Your task to perform on an android device: Add "lg ultragear" to the cart on costco Image 0: 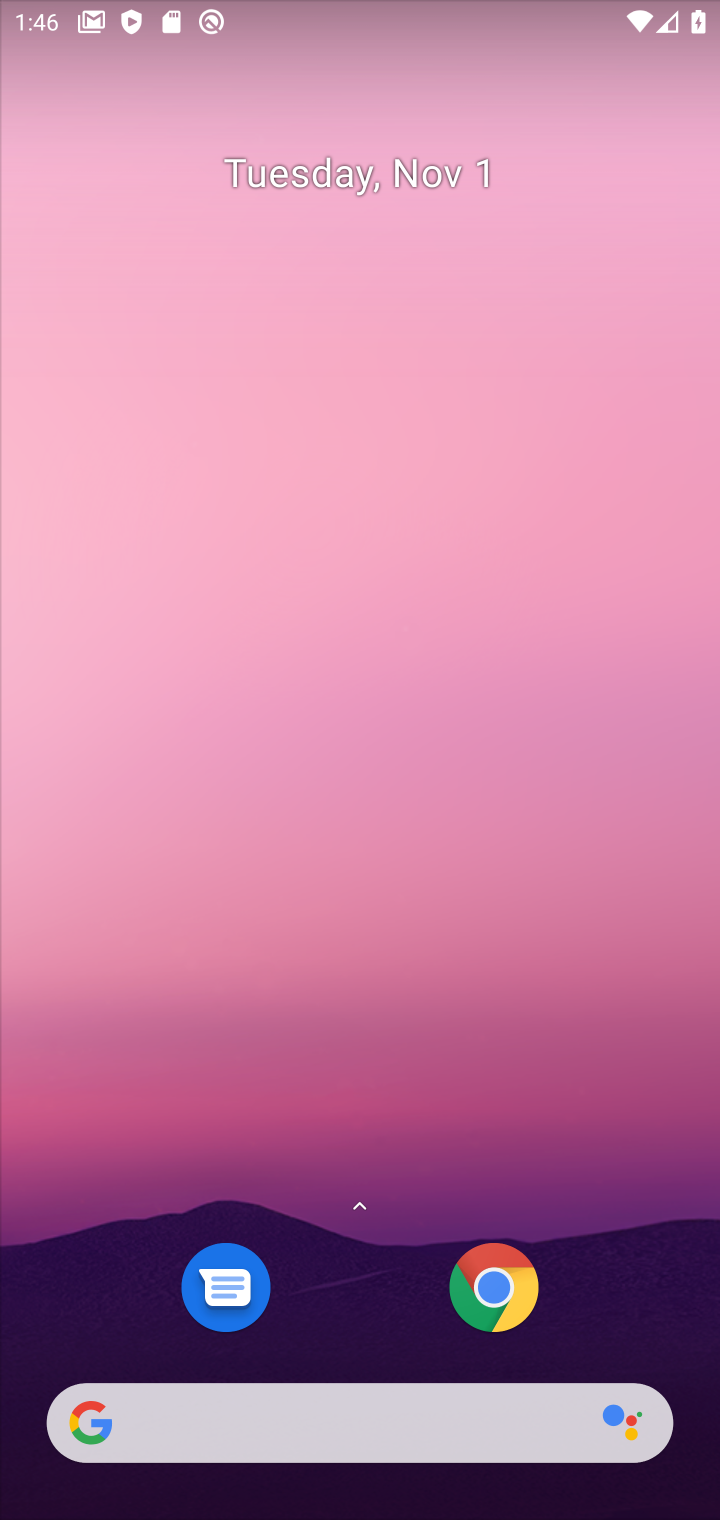
Step 0: drag from (324, 928) to (392, 154)
Your task to perform on an android device: Add "lg ultragear" to the cart on costco Image 1: 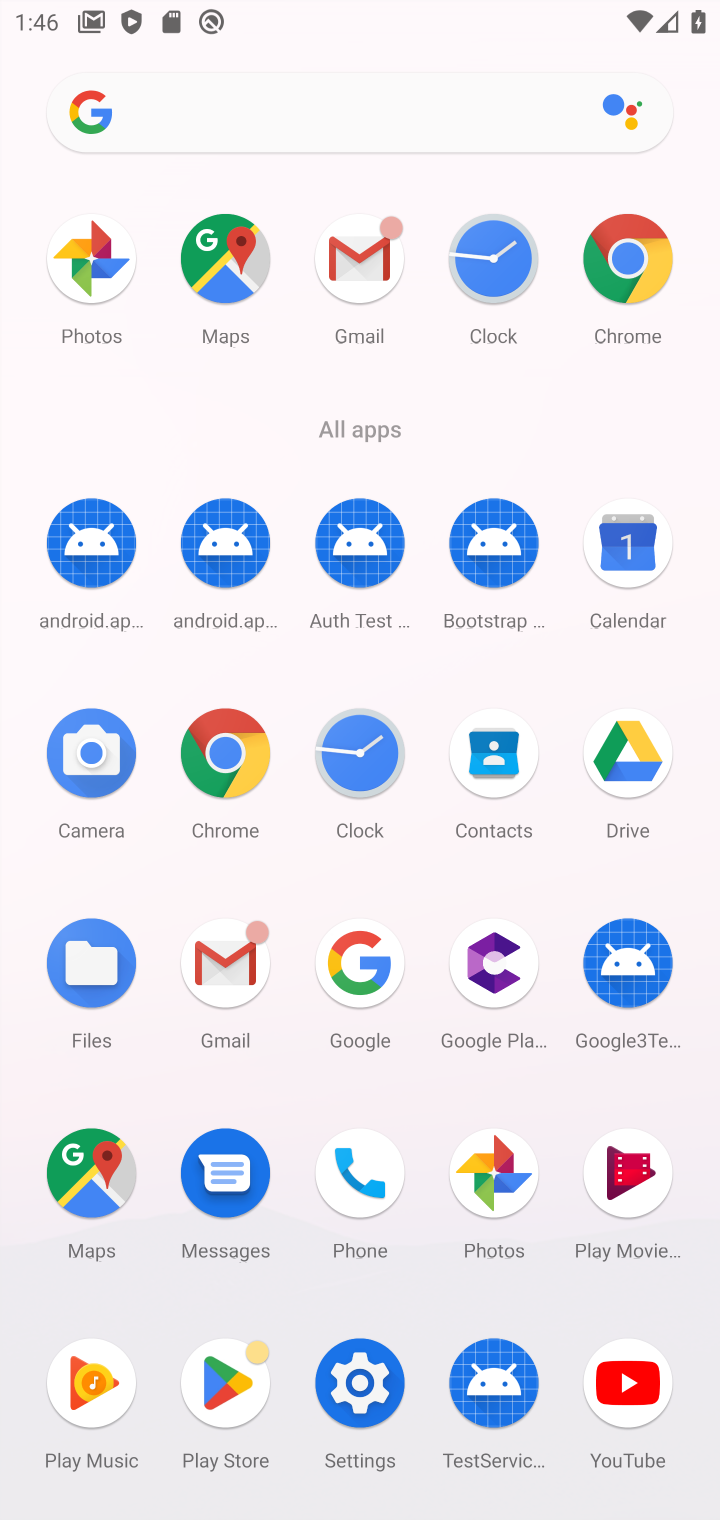
Step 1: click (229, 768)
Your task to perform on an android device: Add "lg ultragear" to the cart on costco Image 2: 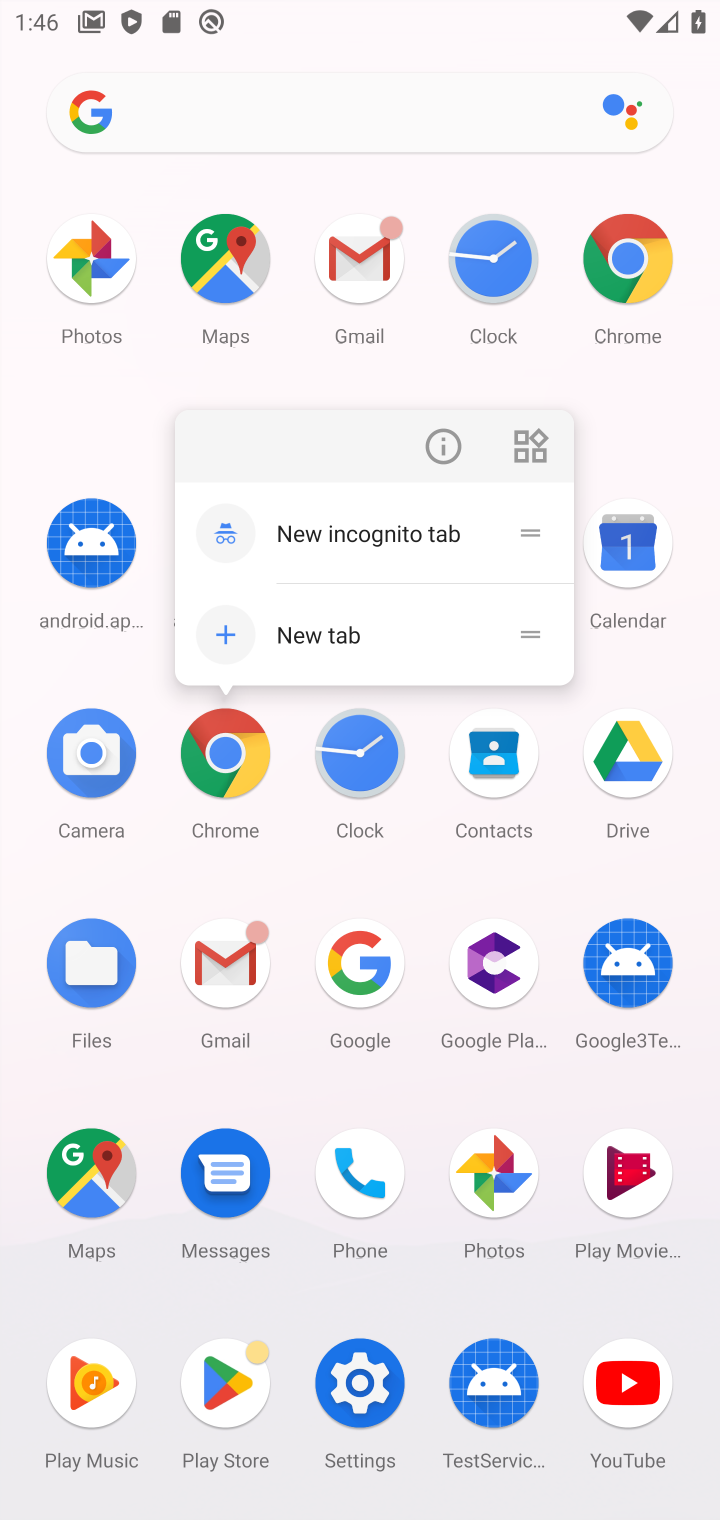
Step 2: click (229, 768)
Your task to perform on an android device: Add "lg ultragear" to the cart on costco Image 3: 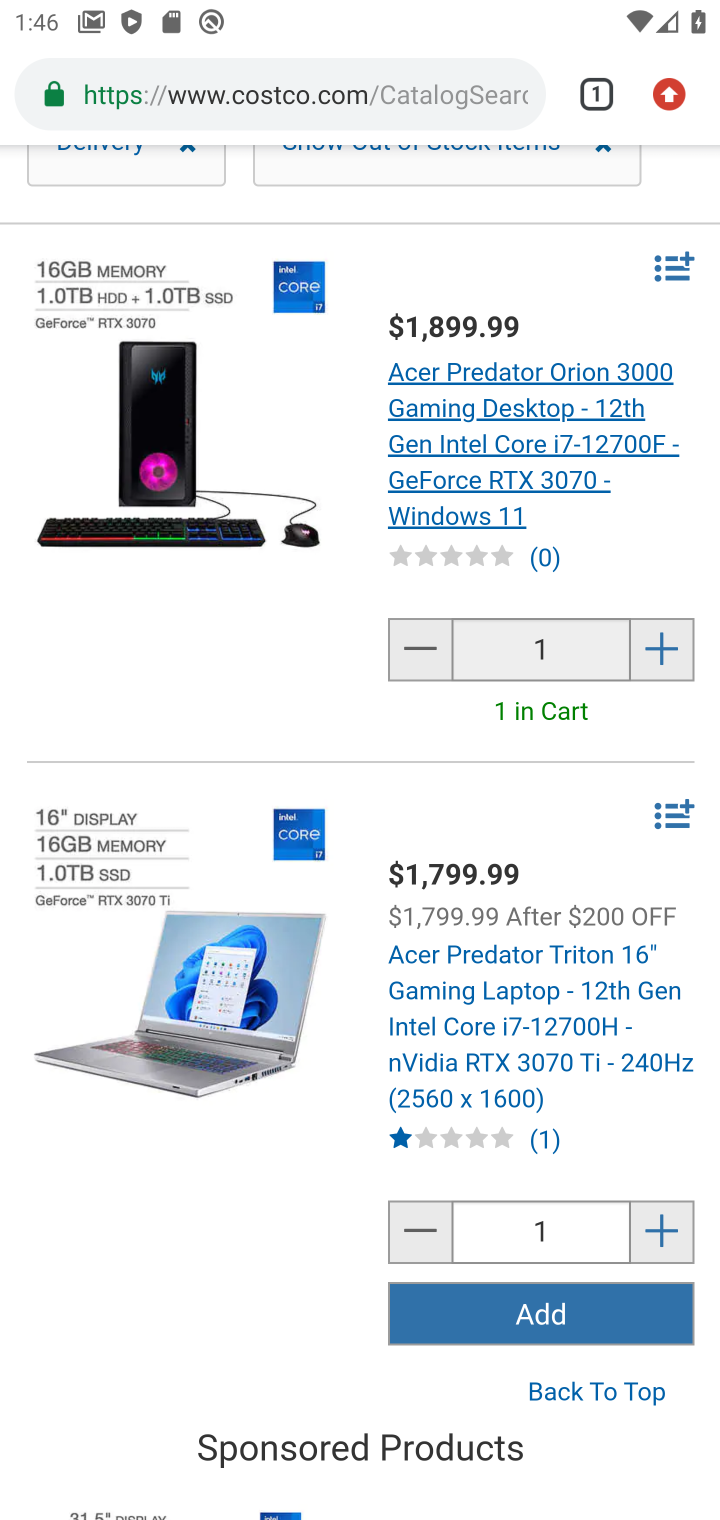
Step 3: click (425, 80)
Your task to perform on an android device: Add "lg ultragear" to the cart on costco Image 4: 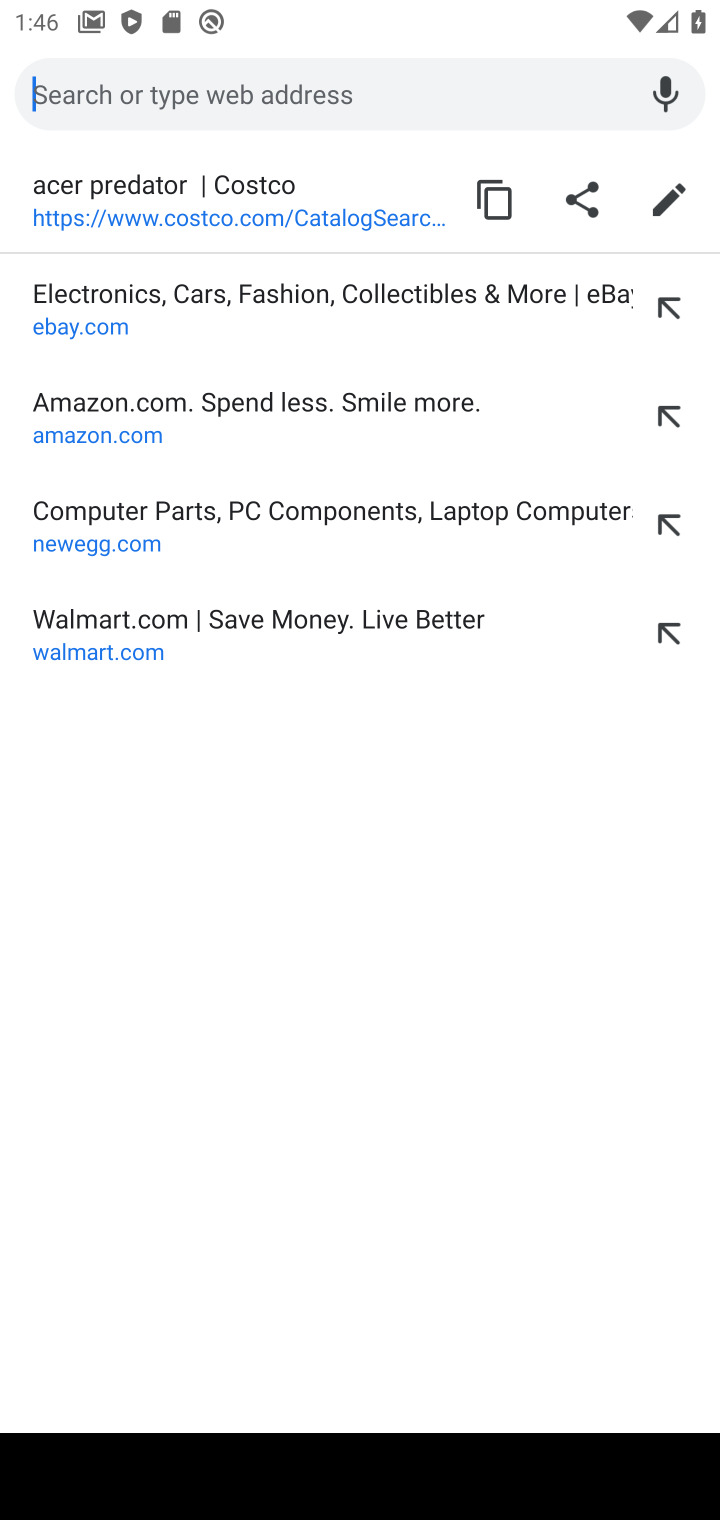
Step 4: type "costco.com"
Your task to perform on an android device: Add "lg ultragear" to the cart on costco Image 5: 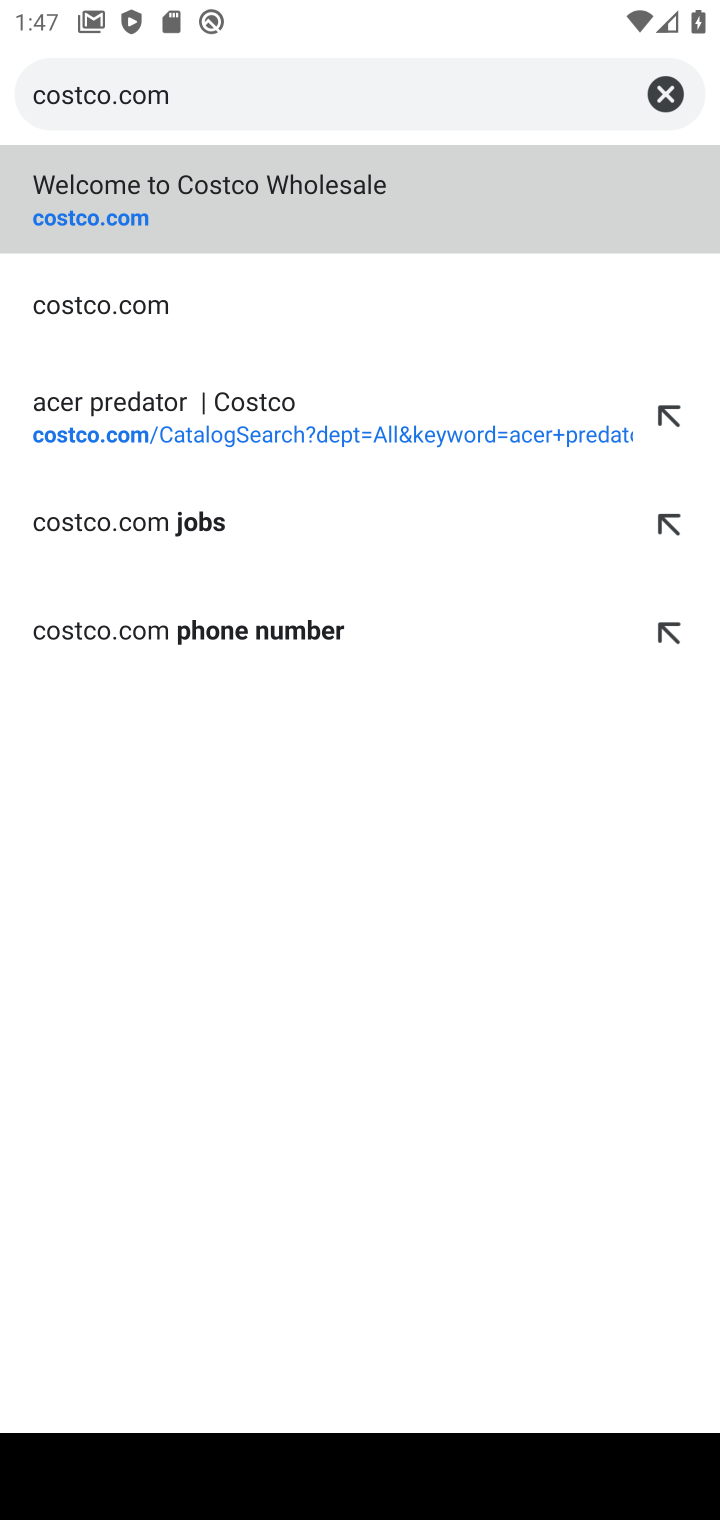
Step 5: press enter
Your task to perform on an android device: Add "lg ultragear" to the cart on costco Image 6: 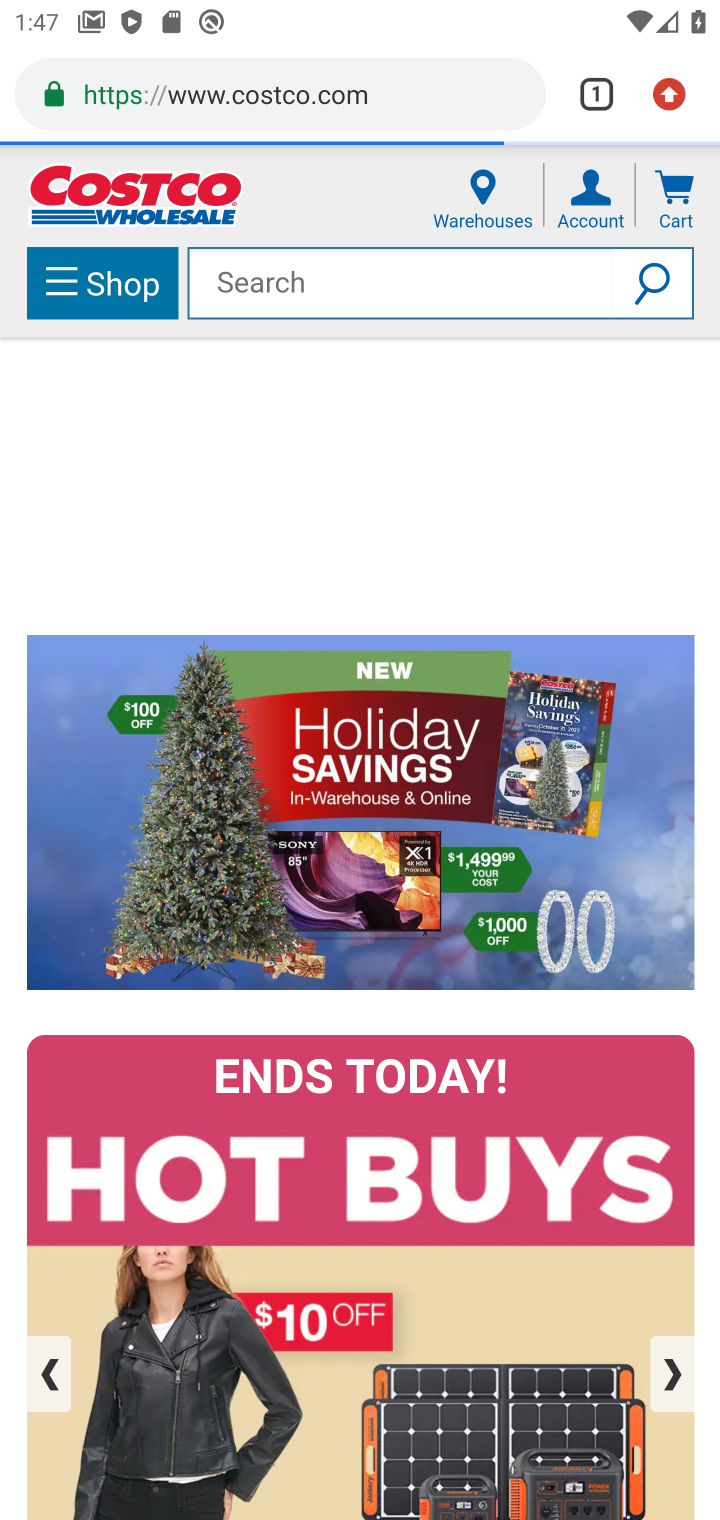
Step 6: click (509, 287)
Your task to perform on an android device: Add "lg ultragear" to the cart on costco Image 7: 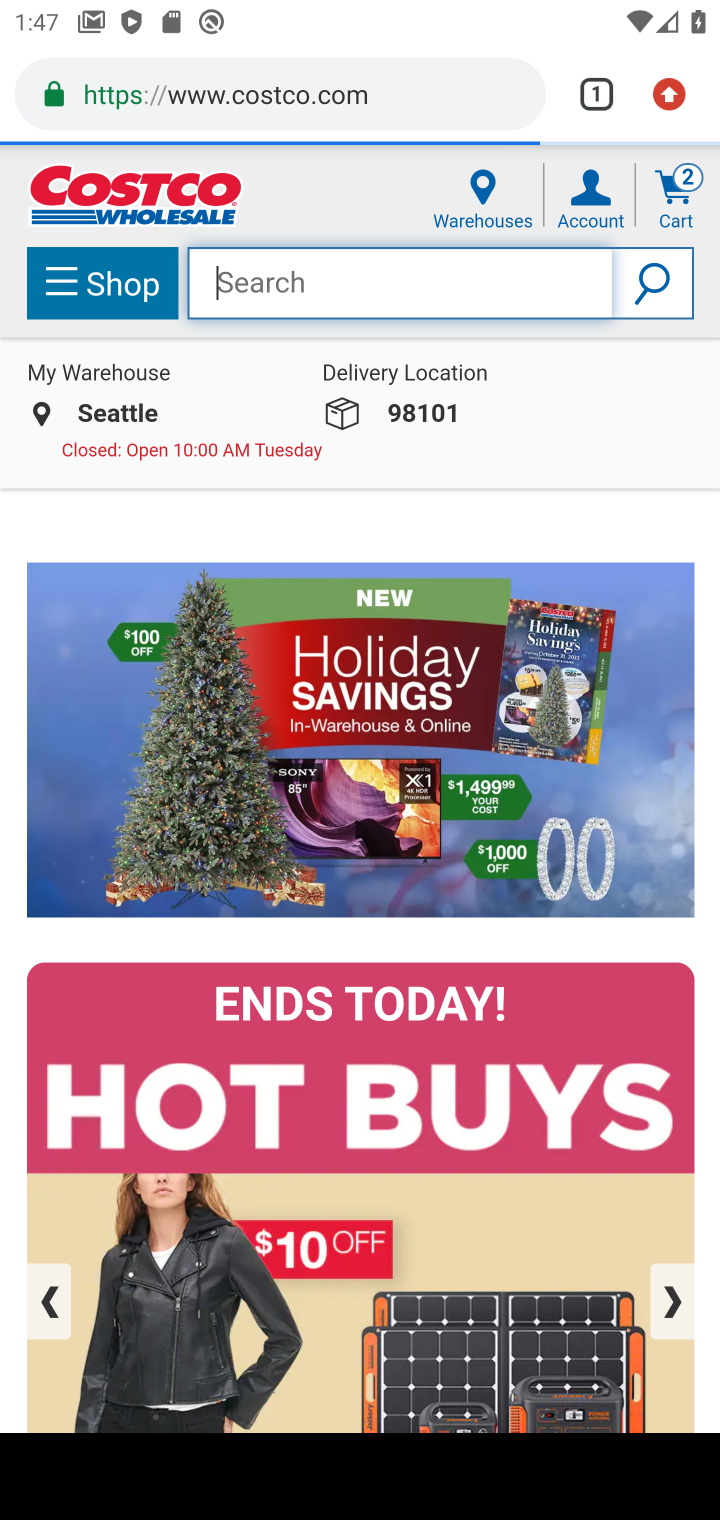
Step 7: type "lg ultragear"
Your task to perform on an android device: Add "lg ultragear" to the cart on costco Image 8: 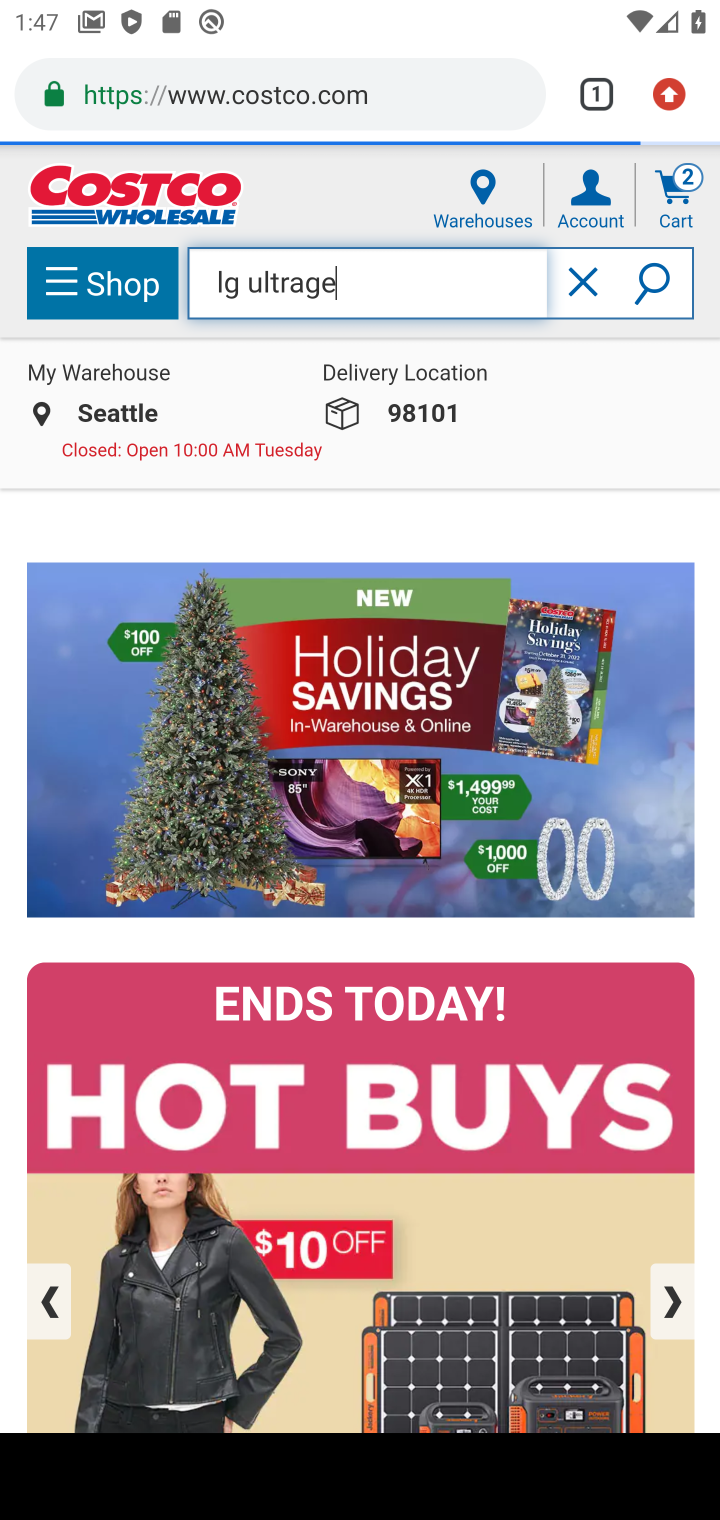
Step 8: press enter
Your task to perform on an android device: Add "lg ultragear" to the cart on costco Image 9: 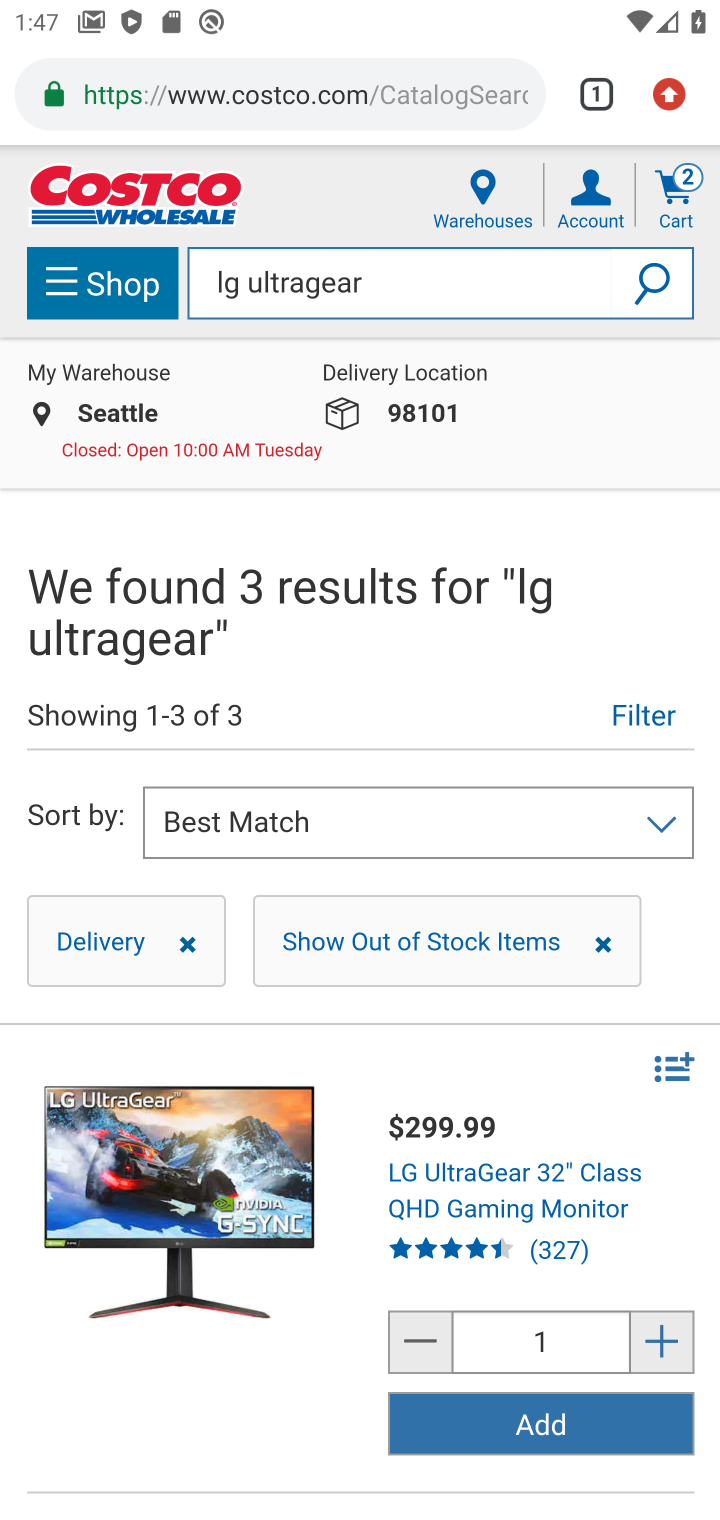
Step 9: drag from (305, 1205) to (401, 434)
Your task to perform on an android device: Add "lg ultragear" to the cart on costco Image 10: 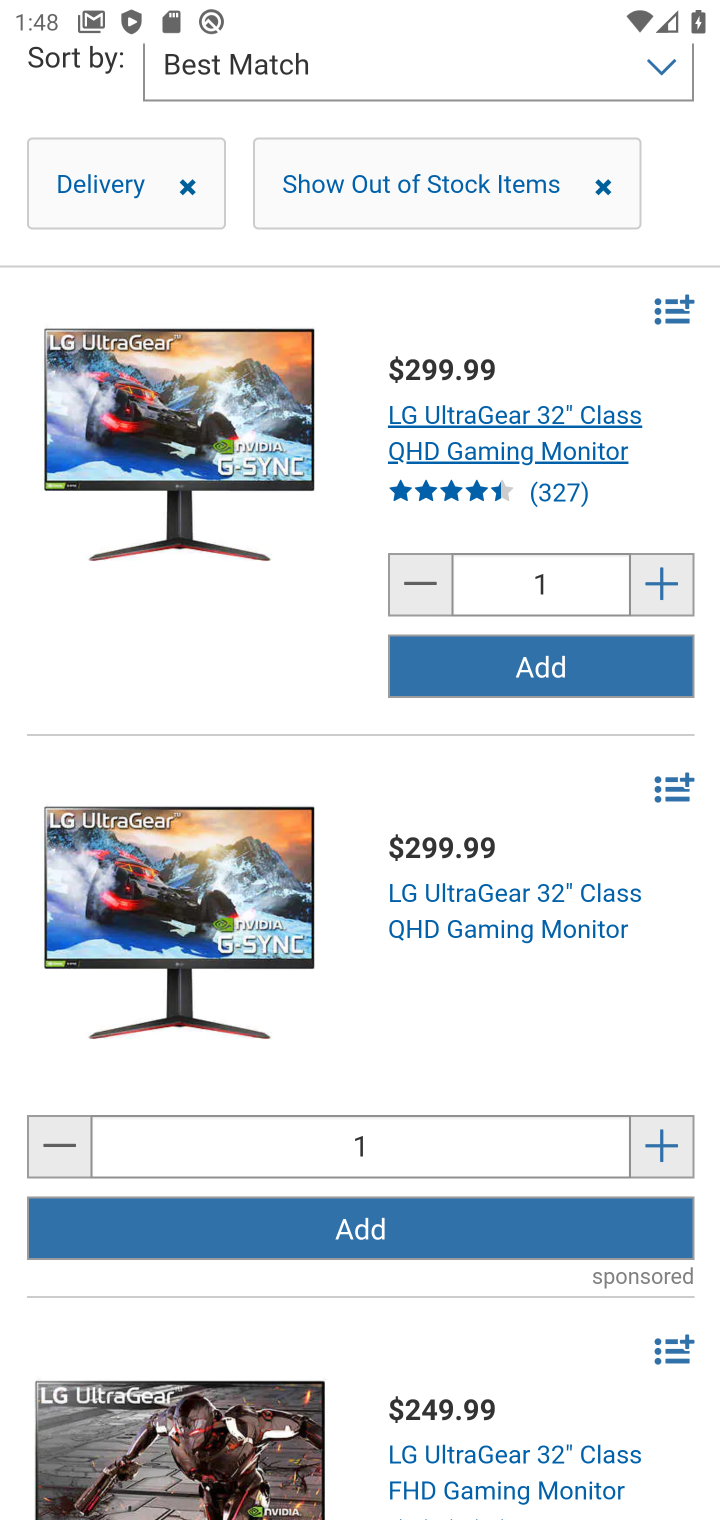
Step 10: click (508, 437)
Your task to perform on an android device: Add "lg ultragear" to the cart on costco Image 11: 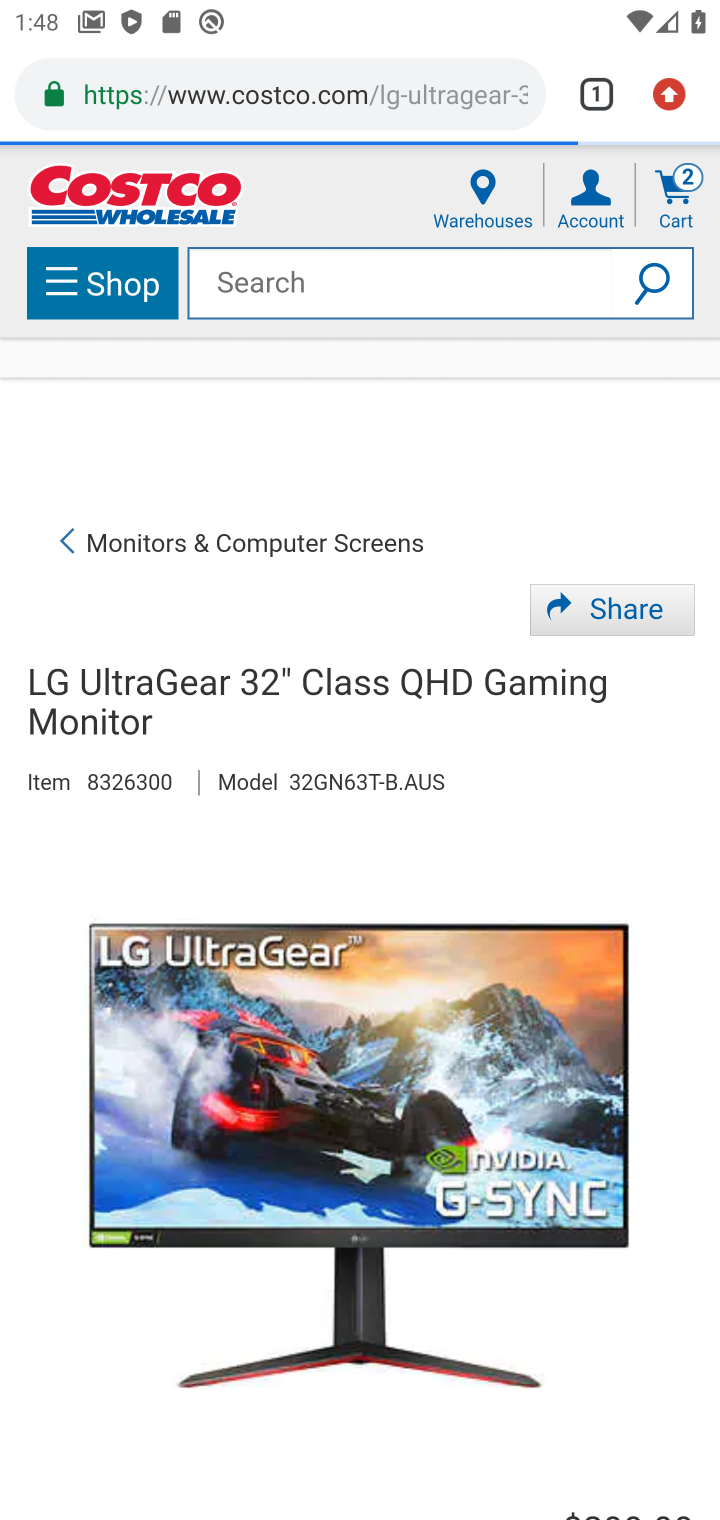
Step 11: drag from (494, 1220) to (526, 360)
Your task to perform on an android device: Add "lg ultragear" to the cart on costco Image 12: 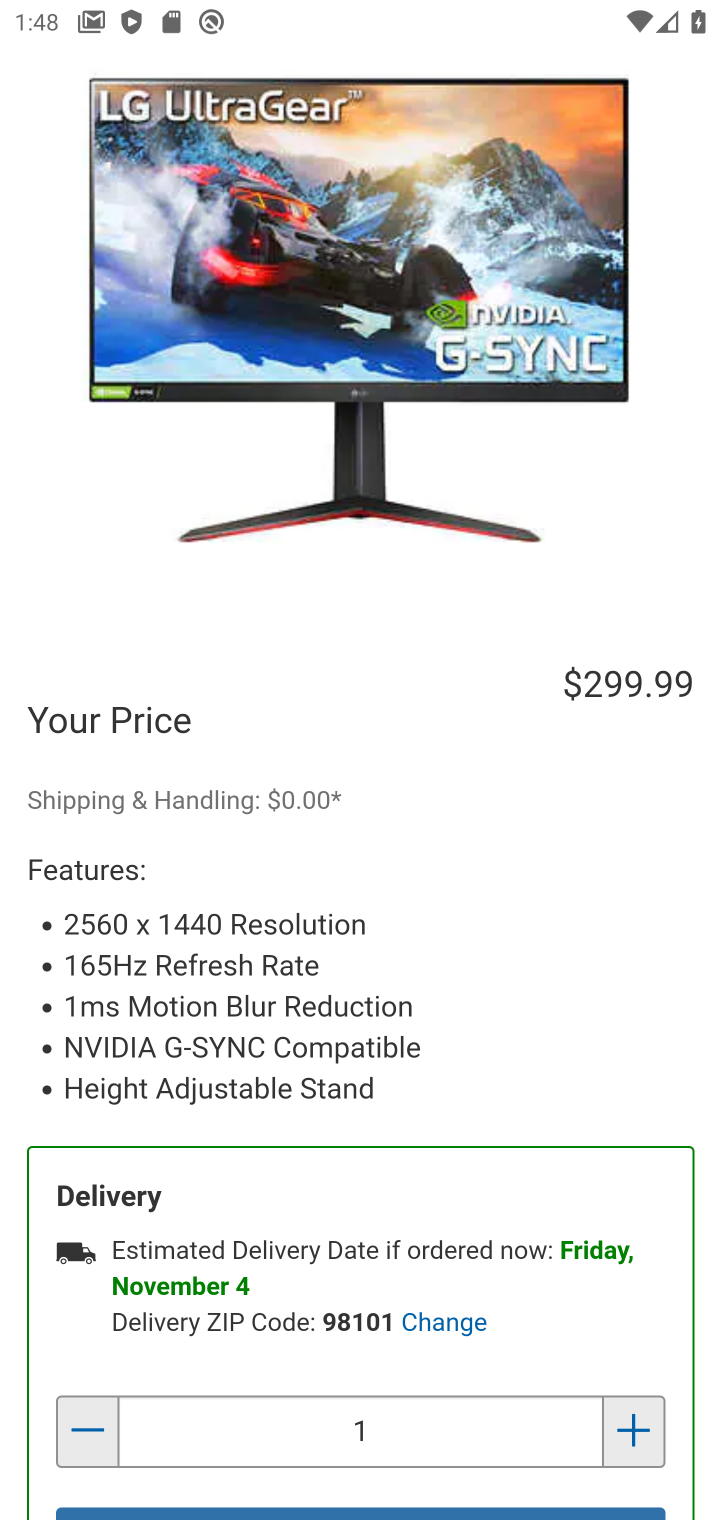
Step 12: drag from (346, 941) to (429, 318)
Your task to perform on an android device: Add "lg ultragear" to the cart on costco Image 13: 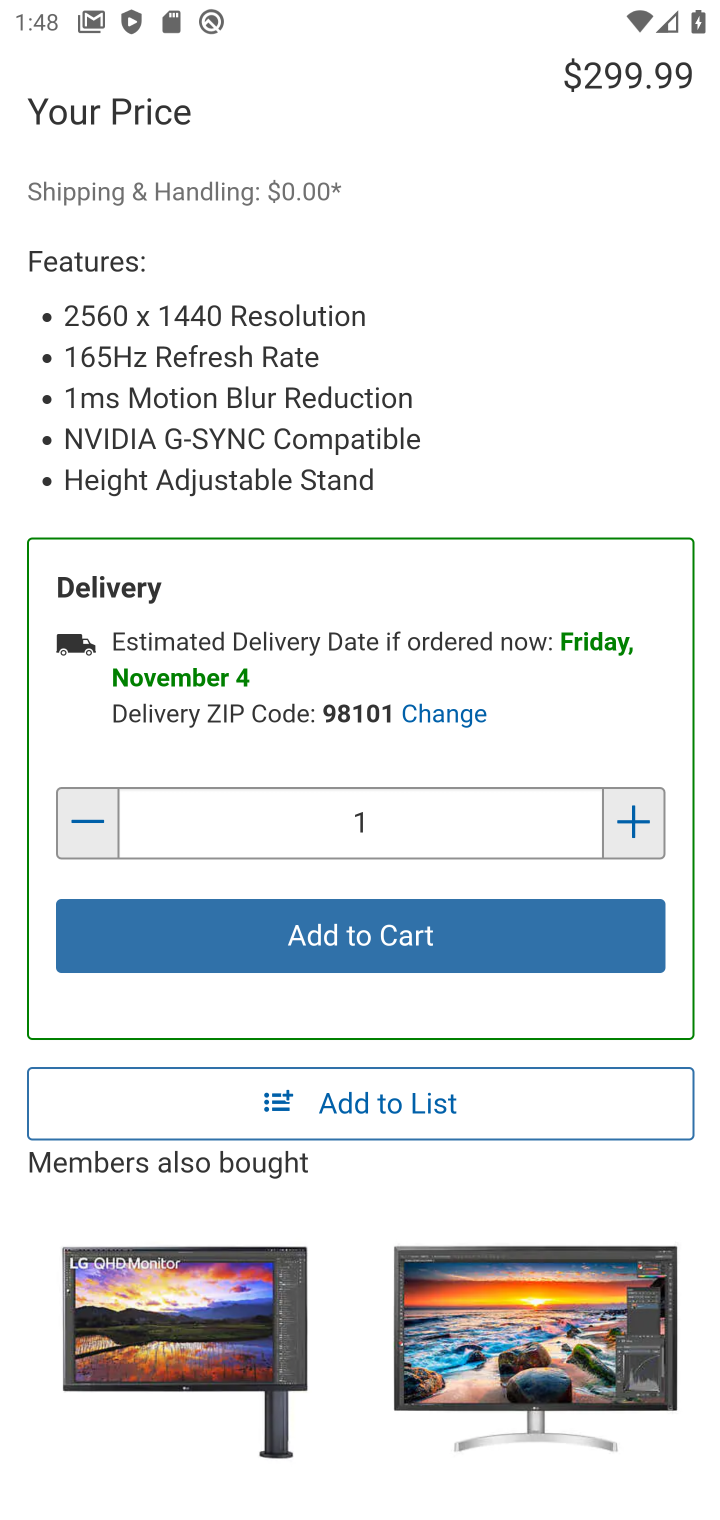
Step 13: click (399, 941)
Your task to perform on an android device: Add "lg ultragear" to the cart on costco Image 14: 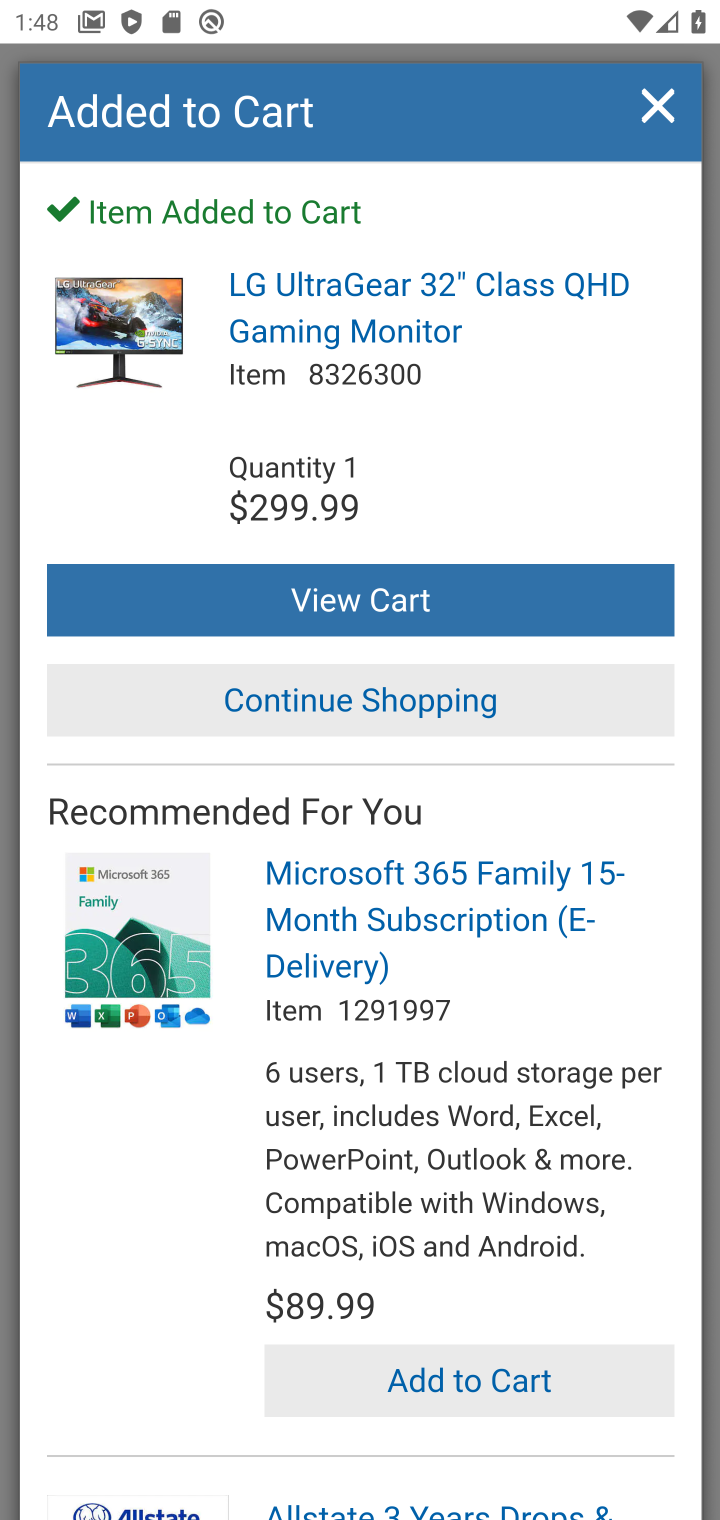
Step 14: task complete